Your task to perform on an android device: choose inbox layout in the gmail app Image 0: 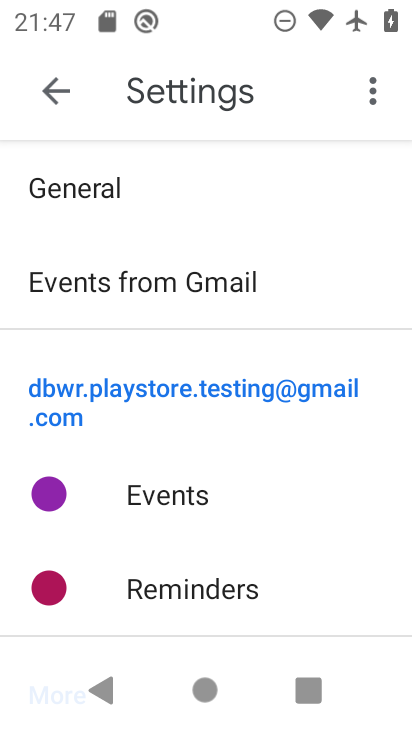
Step 0: press home button
Your task to perform on an android device: choose inbox layout in the gmail app Image 1: 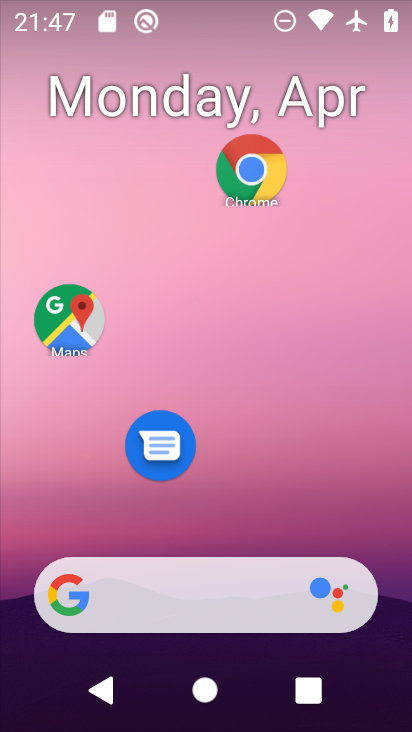
Step 1: drag from (226, 513) to (226, 58)
Your task to perform on an android device: choose inbox layout in the gmail app Image 2: 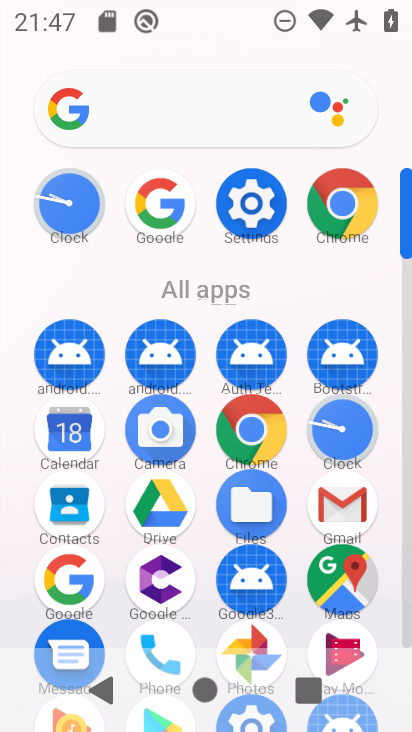
Step 2: click (328, 488)
Your task to perform on an android device: choose inbox layout in the gmail app Image 3: 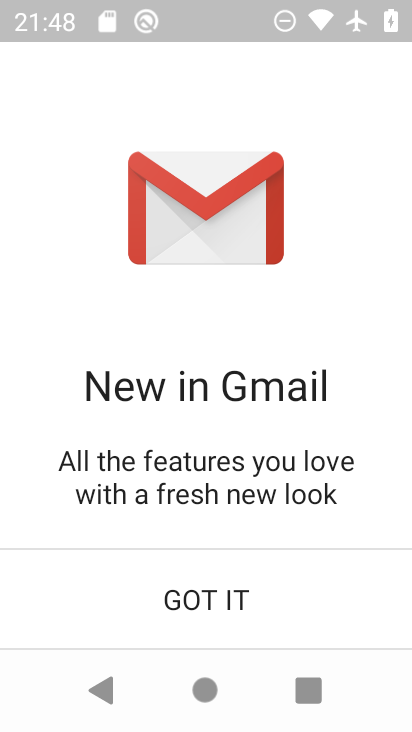
Step 3: click (247, 592)
Your task to perform on an android device: choose inbox layout in the gmail app Image 4: 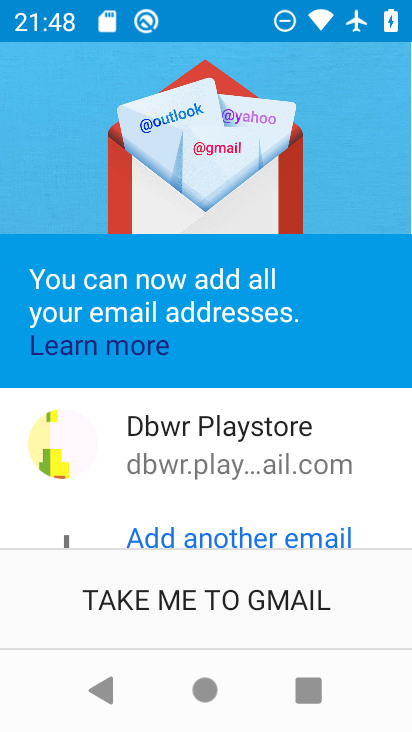
Step 4: click (210, 597)
Your task to perform on an android device: choose inbox layout in the gmail app Image 5: 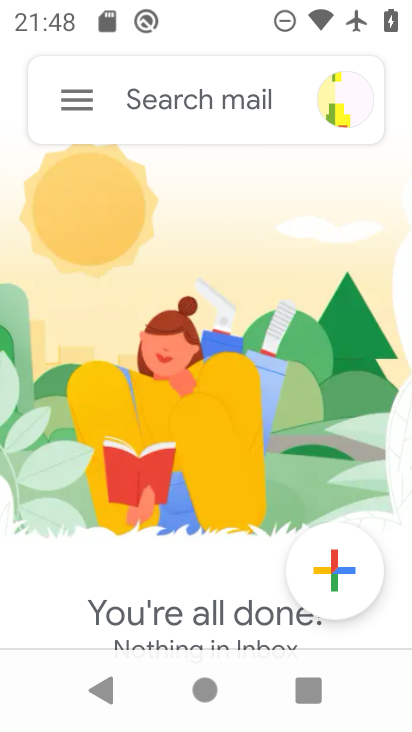
Step 5: click (71, 88)
Your task to perform on an android device: choose inbox layout in the gmail app Image 6: 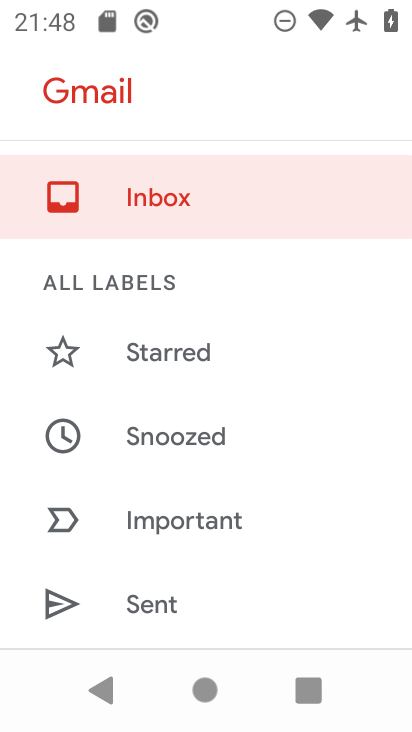
Step 6: drag from (217, 593) to (238, 177)
Your task to perform on an android device: choose inbox layout in the gmail app Image 7: 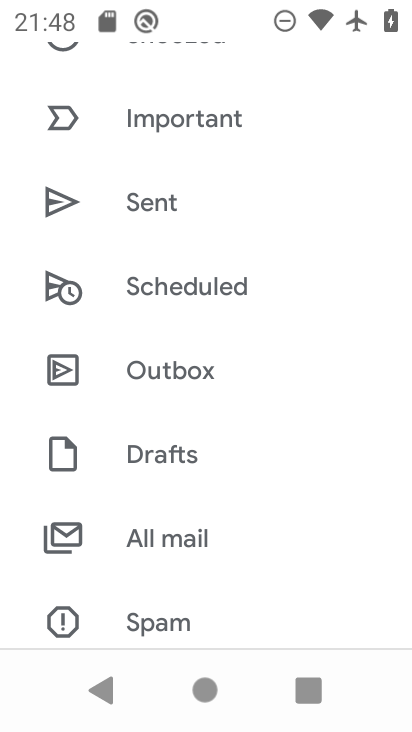
Step 7: drag from (250, 474) to (262, 188)
Your task to perform on an android device: choose inbox layout in the gmail app Image 8: 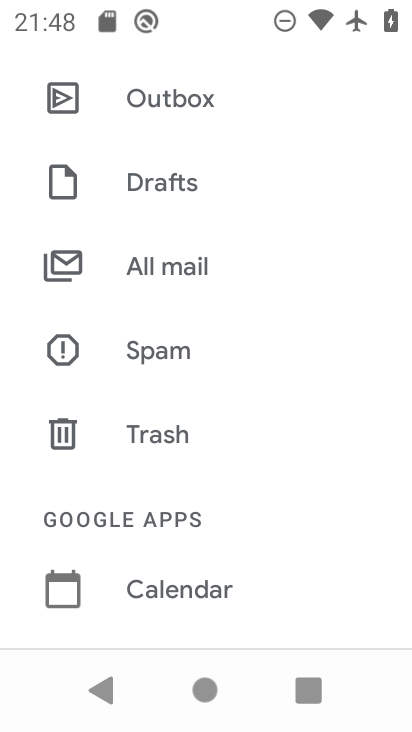
Step 8: drag from (252, 418) to (260, 153)
Your task to perform on an android device: choose inbox layout in the gmail app Image 9: 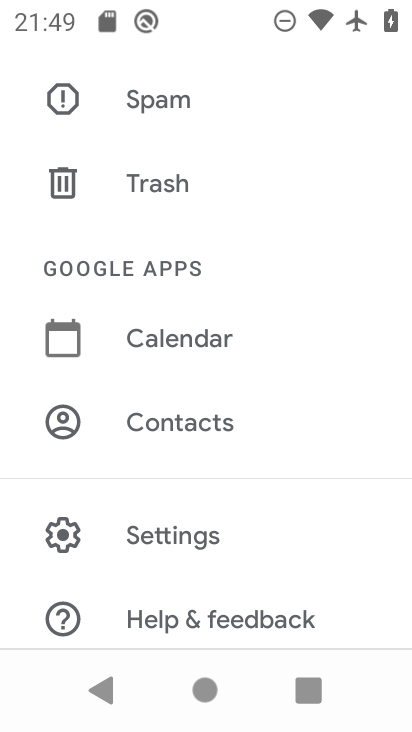
Step 9: click (199, 532)
Your task to perform on an android device: choose inbox layout in the gmail app Image 10: 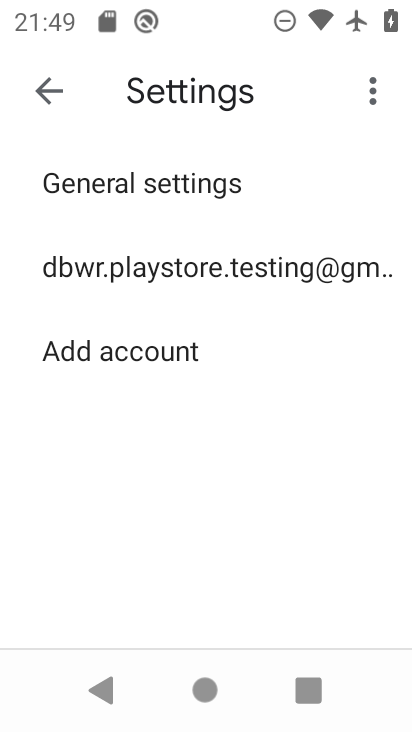
Step 10: click (199, 258)
Your task to perform on an android device: choose inbox layout in the gmail app Image 11: 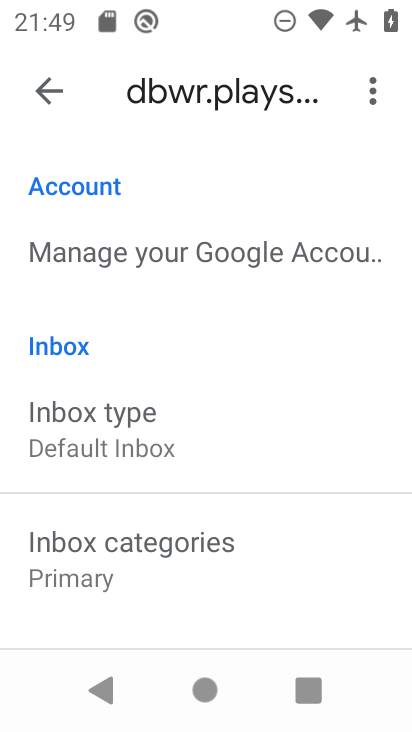
Step 11: drag from (242, 531) to (241, 305)
Your task to perform on an android device: choose inbox layout in the gmail app Image 12: 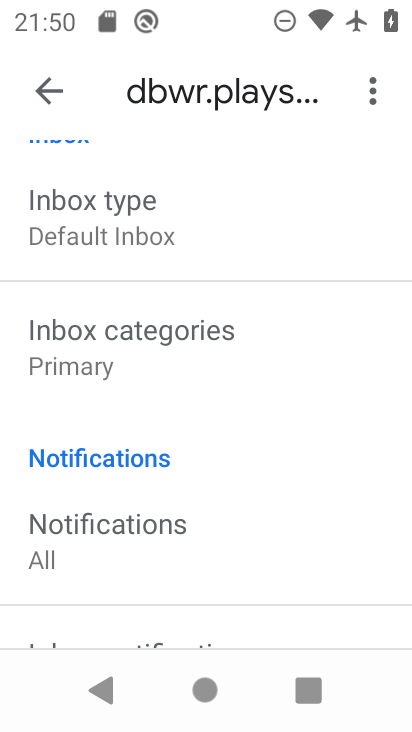
Step 12: click (144, 229)
Your task to perform on an android device: choose inbox layout in the gmail app Image 13: 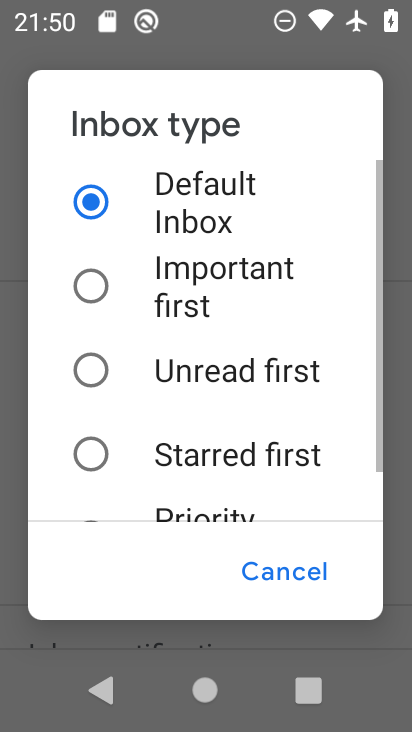
Step 13: click (197, 504)
Your task to perform on an android device: choose inbox layout in the gmail app Image 14: 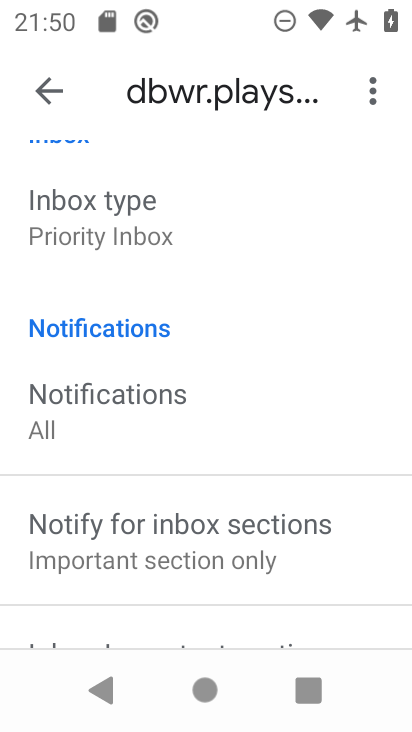
Step 14: task complete